Your task to perform on an android device: Open display settings Image 0: 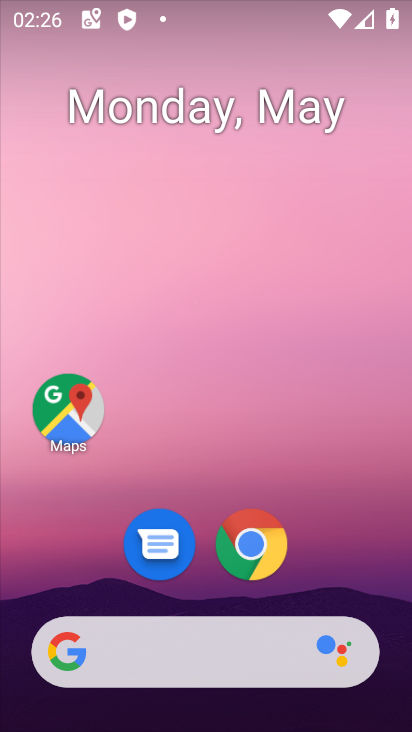
Step 0: drag from (365, 604) to (357, 196)
Your task to perform on an android device: Open display settings Image 1: 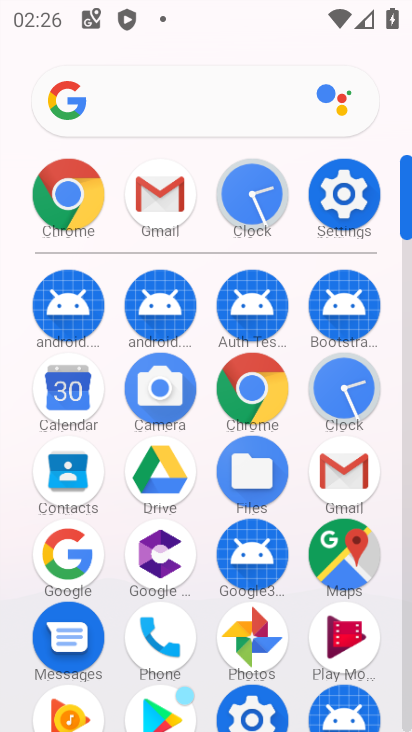
Step 1: click (331, 210)
Your task to perform on an android device: Open display settings Image 2: 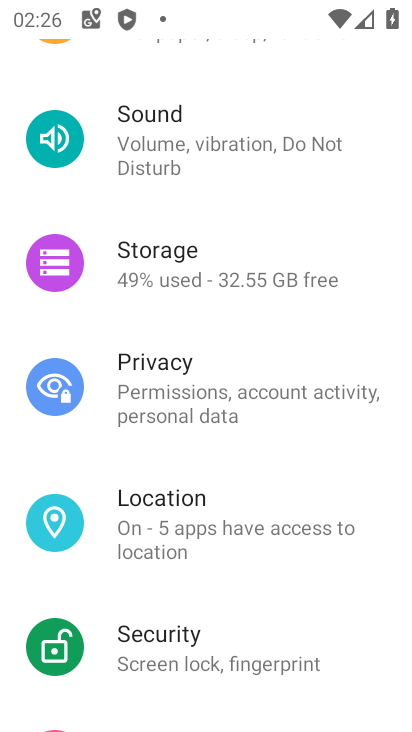
Step 2: drag from (305, 574) to (296, 426)
Your task to perform on an android device: Open display settings Image 3: 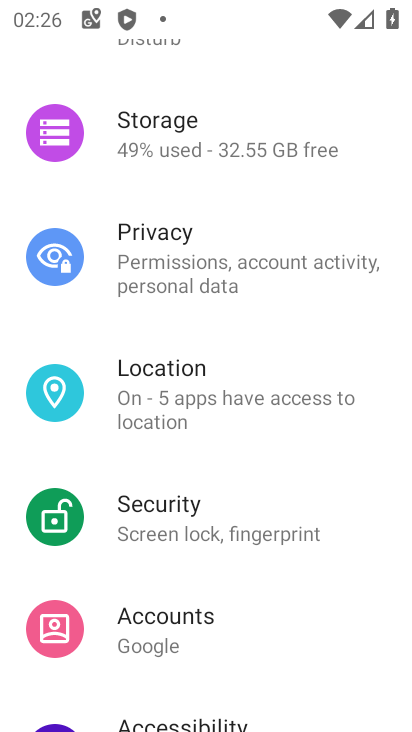
Step 3: drag from (321, 608) to (321, 344)
Your task to perform on an android device: Open display settings Image 4: 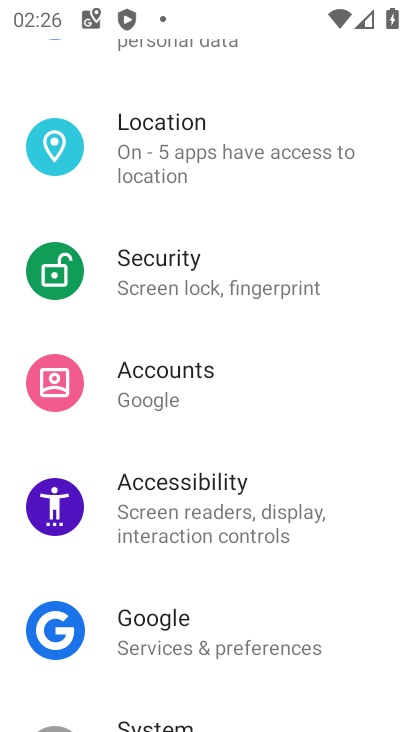
Step 4: drag from (319, 596) to (315, 363)
Your task to perform on an android device: Open display settings Image 5: 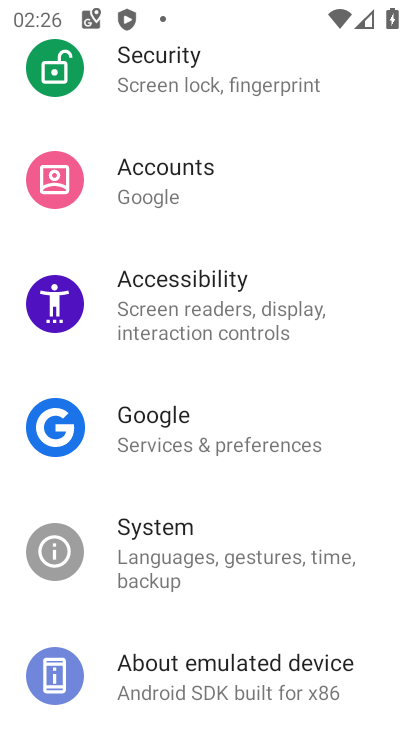
Step 5: drag from (296, 567) to (295, 269)
Your task to perform on an android device: Open display settings Image 6: 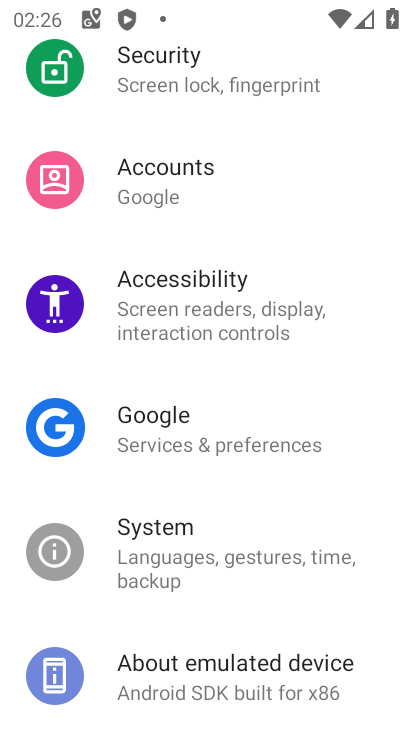
Step 6: drag from (306, 478) to (313, 281)
Your task to perform on an android device: Open display settings Image 7: 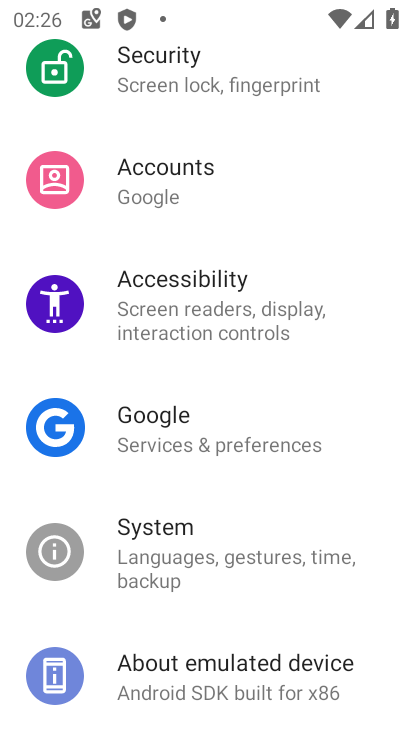
Step 7: drag from (336, 219) to (346, 401)
Your task to perform on an android device: Open display settings Image 8: 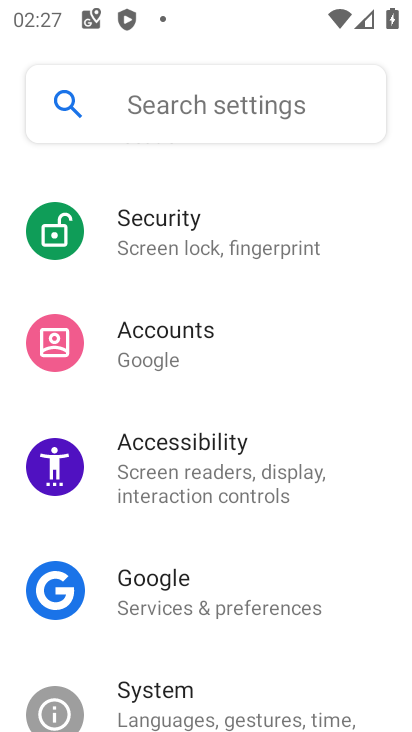
Step 8: drag from (345, 236) to (339, 461)
Your task to perform on an android device: Open display settings Image 9: 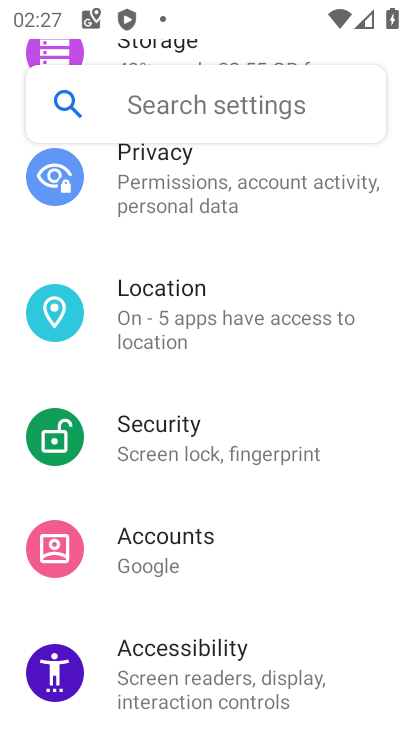
Step 9: drag from (322, 248) to (311, 392)
Your task to perform on an android device: Open display settings Image 10: 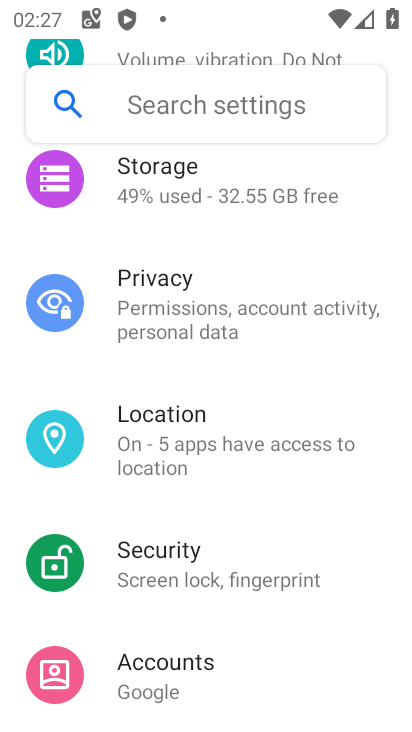
Step 10: drag from (317, 239) to (324, 412)
Your task to perform on an android device: Open display settings Image 11: 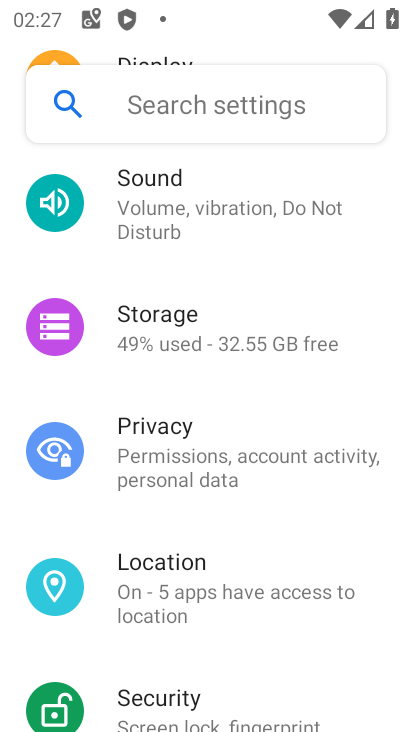
Step 11: drag from (346, 212) to (343, 375)
Your task to perform on an android device: Open display settings Image 12: 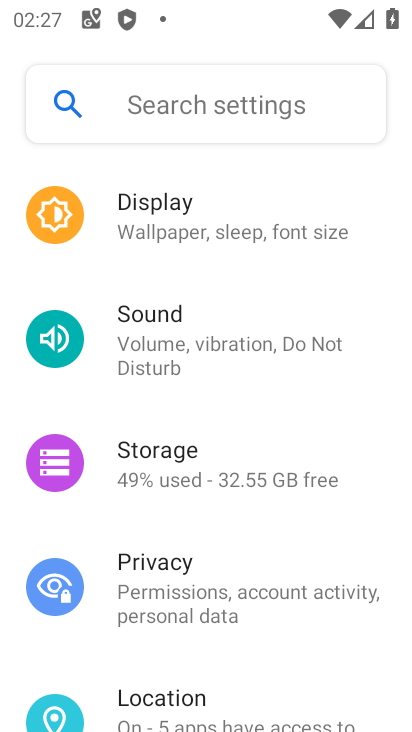
Step 12: click (292, 227)
Your task to perform on an android device: Open display settings Image 13: 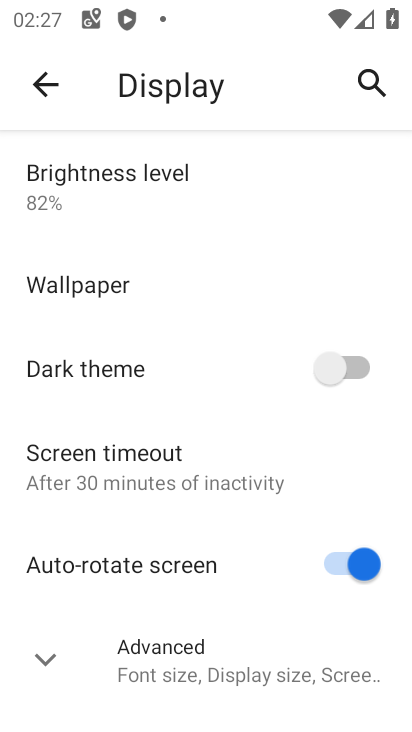
Step 13: task complete